Your task to perform on an android device: turn off wifi Image 0: 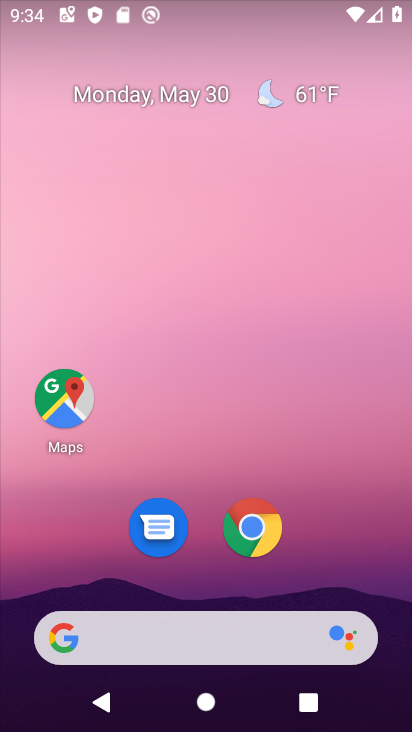
Step 0: drag from (211, 582) to (260, 1)
Your task to perform on an android device: turn off wifi Image 1: 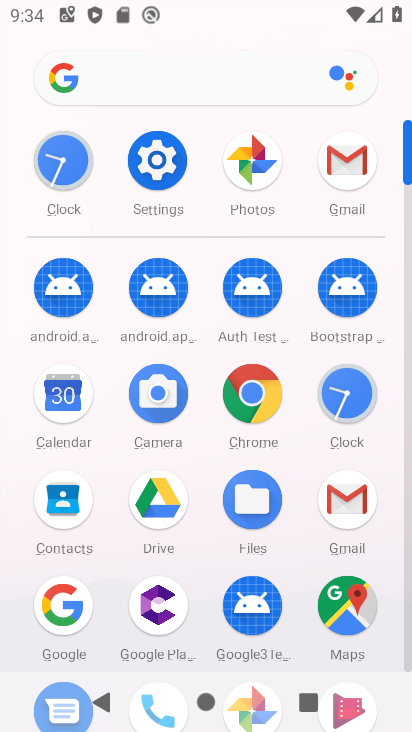
Step 1: click (151, 164)
Your task to perform on an android device: turn off wifi Image 2: 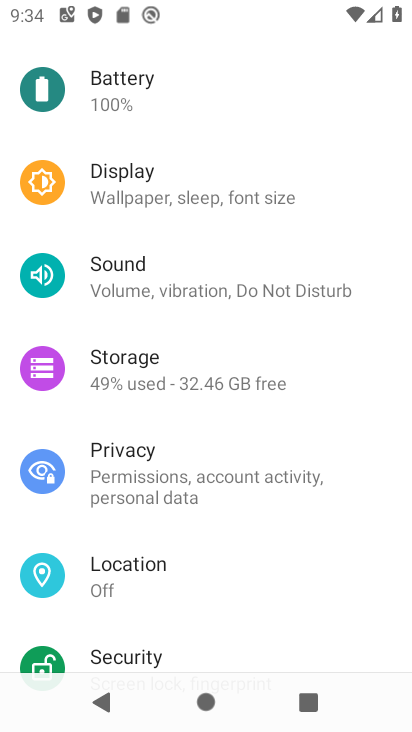
Step 2: drag from (167, 141) to (249, 459)
Your task to perform on an android device: turn off wifi Image 3: 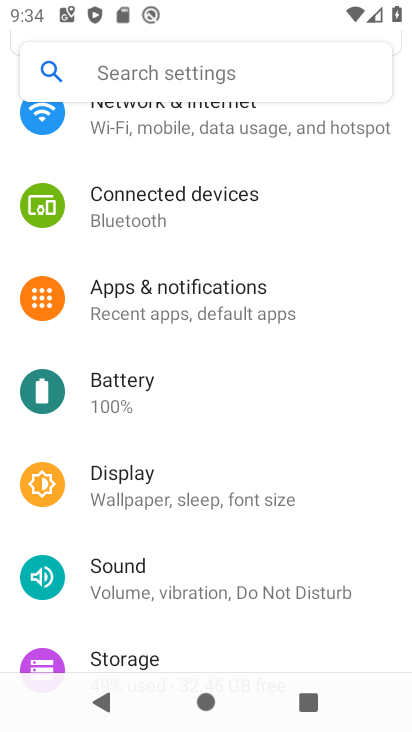
Step 3: click (262, 141)
Your task to perform on an android device: turn off wifi Image 4: 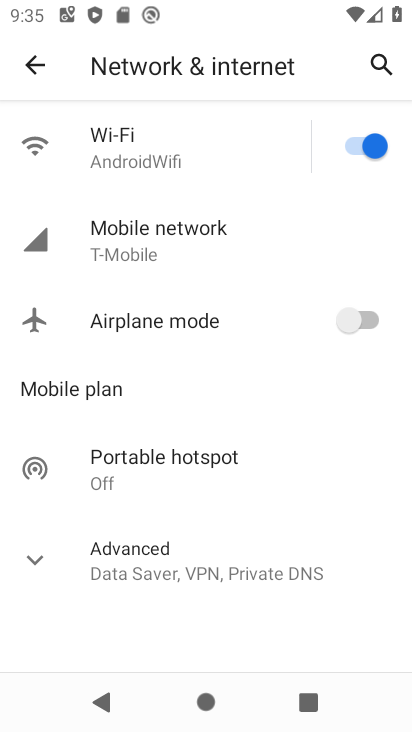
Step 4: click (334, 154)
Your task to perform on an android device: turn off wifi Image 5: 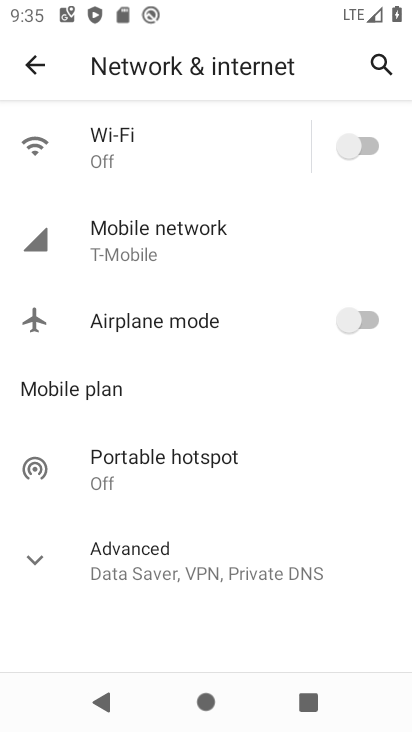
Step 5: task complete